Your task to perform on an android device: show emergency info Image 0: 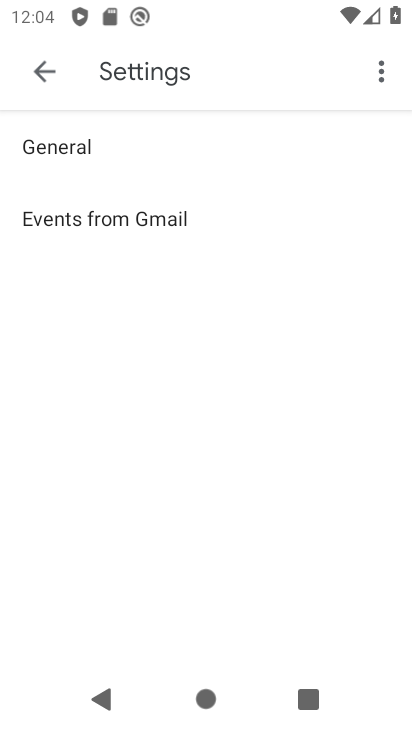
Step 0: press home button
Your task to perform on an android device: show emergency info Image 1: 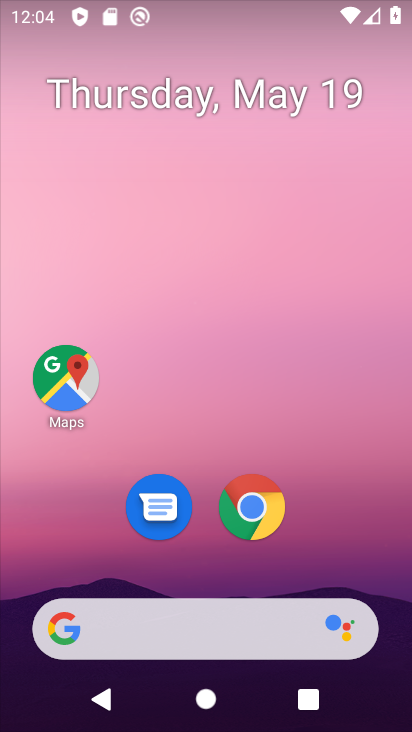
Step 1: drag from (198, 540) to (245, 20)
Your task to perform on an android device: show emergency info Image 2: 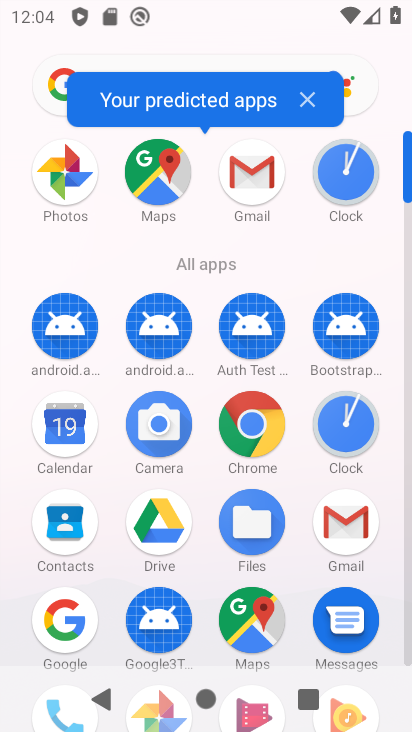
Step 2: drag from (215, 406) to (319, 2)
Your task to perform on an android device: show emergency info Image 3: 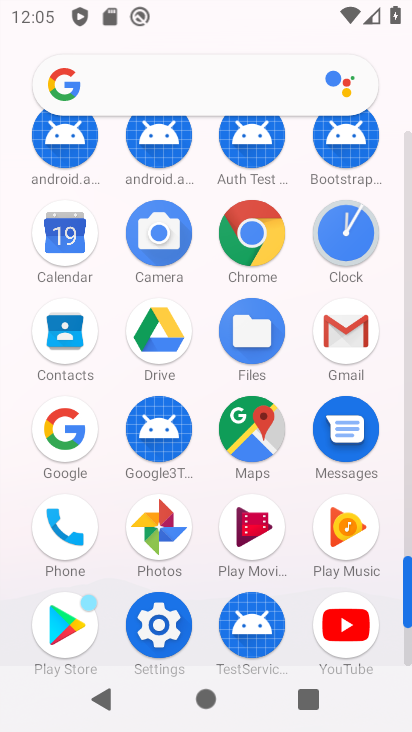
Step 3: click (170, 626)
Your task to perform on an android device: show emergency info Image 4: 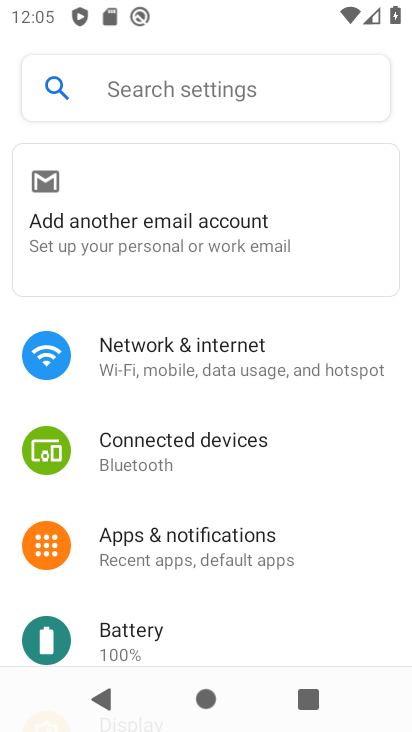
Step 4: drag from (195, 535) to (314, 0)
Your task to perform on an android device: show emergency info Image 5: 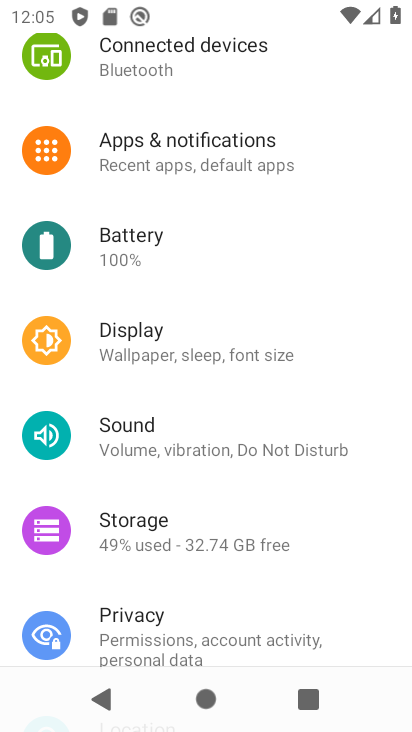
Step 5: drag from (241, 532) to (339, 109)
Your task to perform on an android device: show emergency info Image 6: 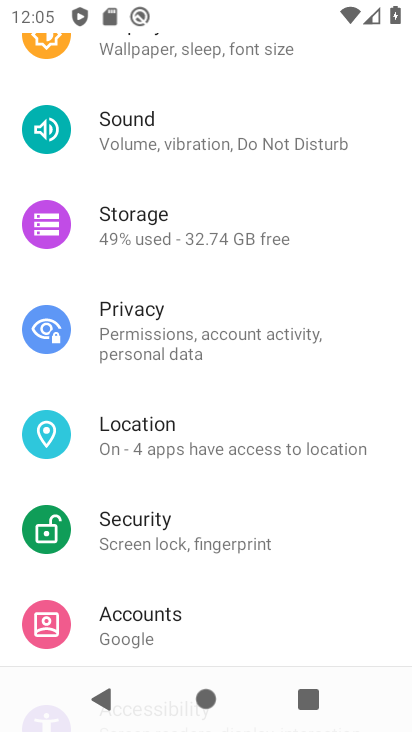
Step 6: drag from (196, 606) to (309, 64)
Your task to perform on an android device: show emergency info Image 7: 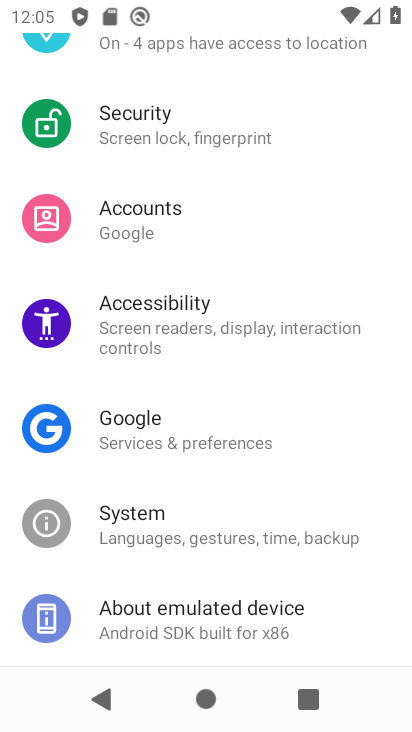
Step 7: click (167, 613)
Your task to perform on an android device: show emergency info Image 8: 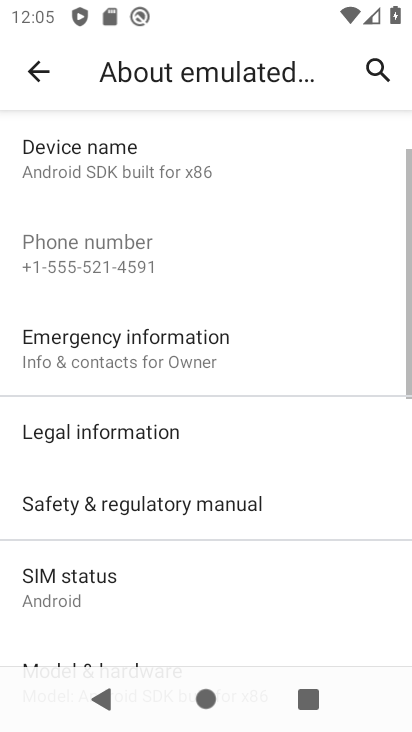
Step 8: click (151, 340)
Your task to perform on an android device: show emergency info Image 9: 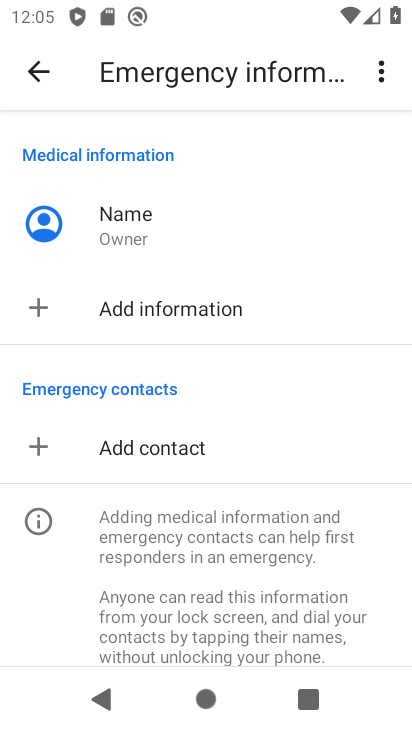
Step 9: task complete